Your task to perform on an android device: turn pop-ups on in chrome Image 0: 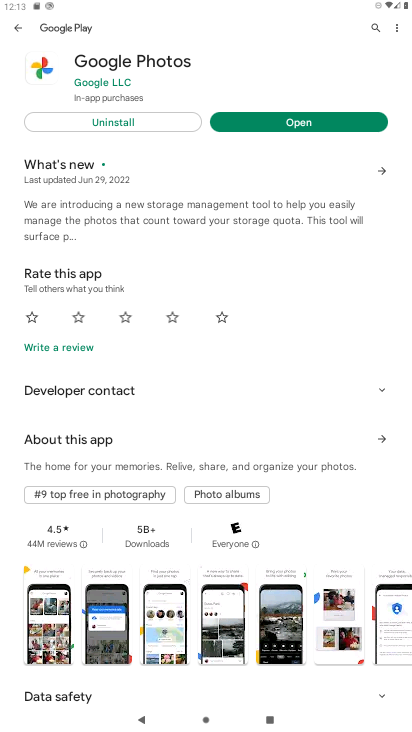
Step 0: press home button
Your task to perform on an android device: turn pop-ups on in chrome Image 1: 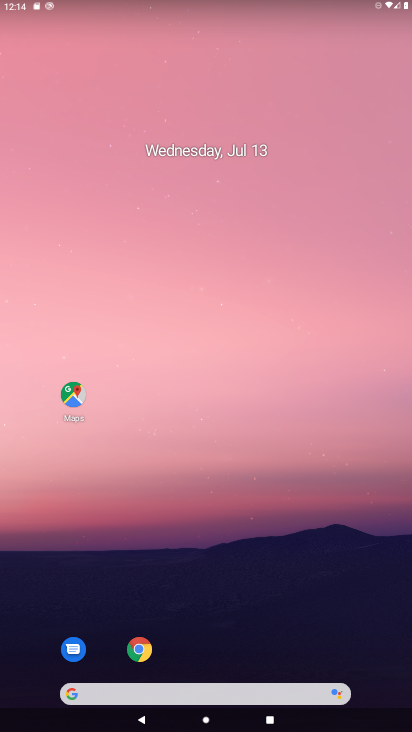
Step 1: click (136, 651)
Your task to perform on an android device: turn pop-ups on in chrome Image 2: 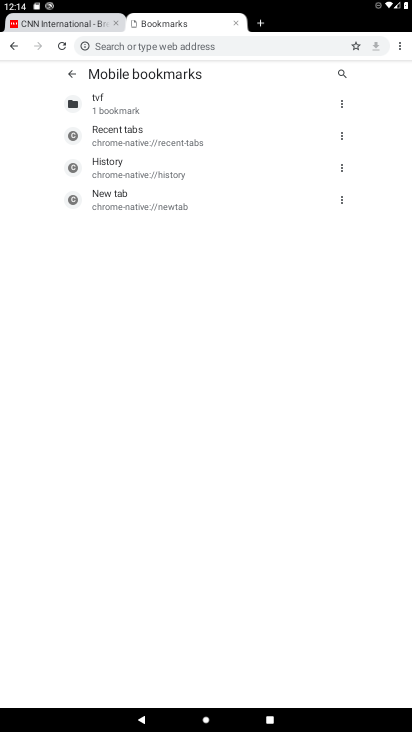
Step 2: click (399, 48)
Your task to perform on an android device: turn pop-ups on in chrome Image 3: 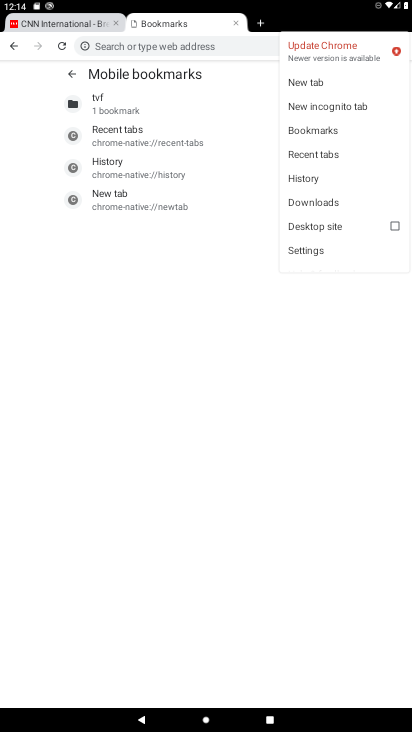
Step 3: click (302, 250)
Your task to perform on an android device: turn pop-ups on in chrome Image 4: 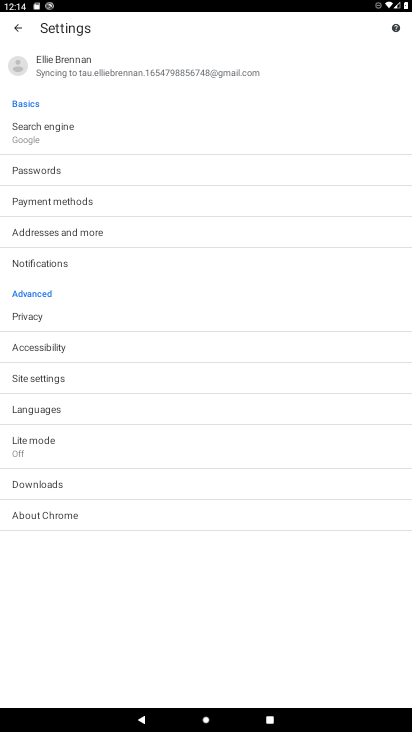
Step 4: click (34, 382)
Your task to perform on an android device: turn pop-ups on in chrome Image 5: 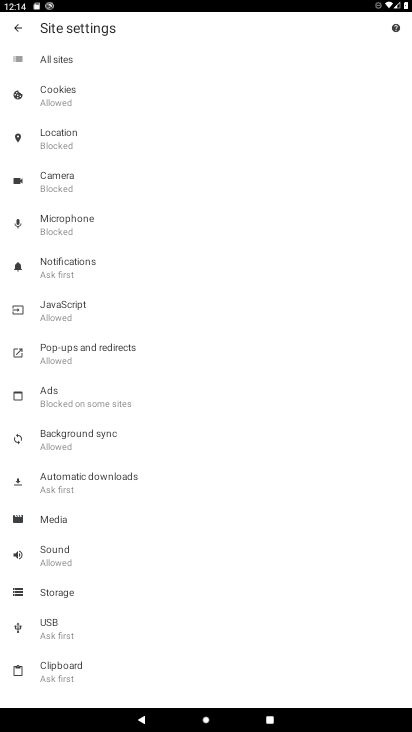
Step 5: click (64, 340)
Your task to perform on an android device: turn pop-ups on in chrome Image 6: 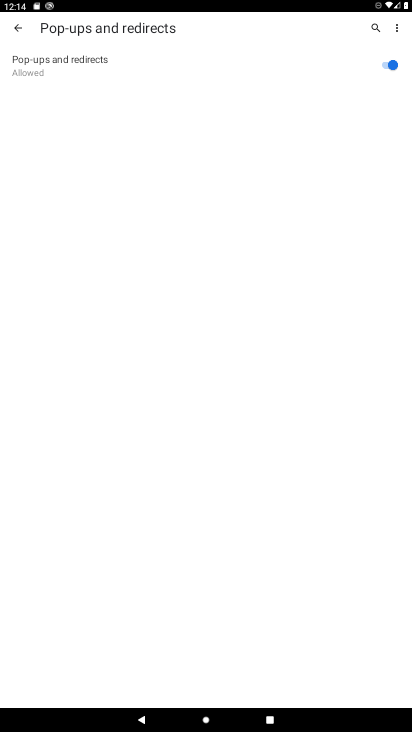
Step 6: task complete